Your task to perform on an android device: delete location history Image 0: 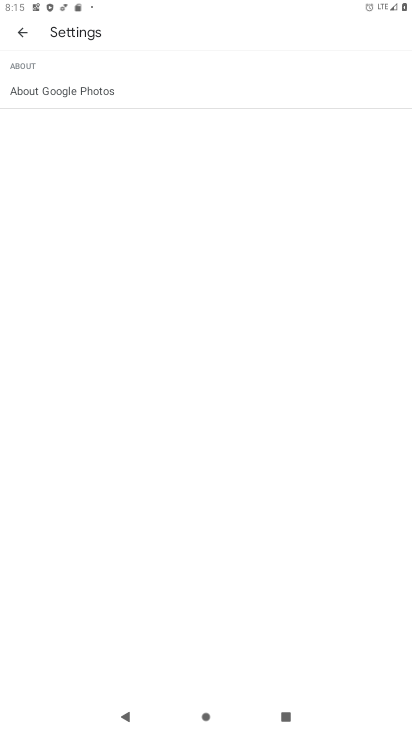
Step 0: press home button
Your task to perform on an android device: delete location history Image 1: 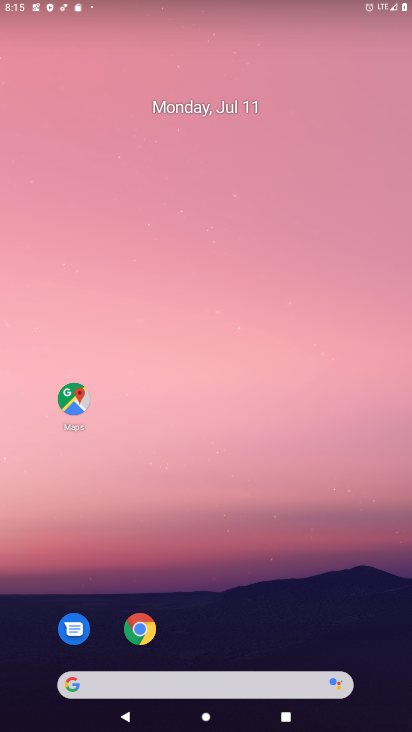
Step 1: drag from (219, 621) to (229, 103)
Your task to perform on an android device: delete location history Image 2: 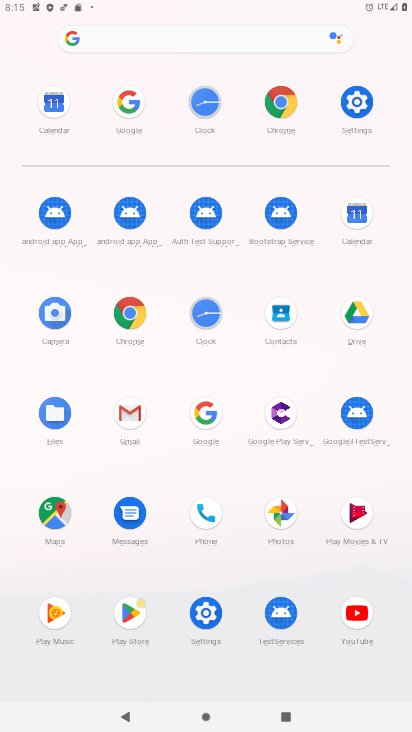
Step 2: click (357, 96)
Your task to perform on an android device: delete location history Image 3: 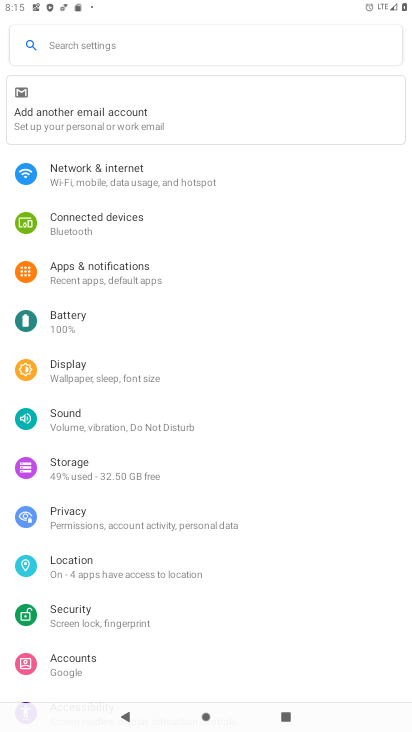
Step 3: click (95, 561)
Your task to perform on an android device: delete location history Image 4: 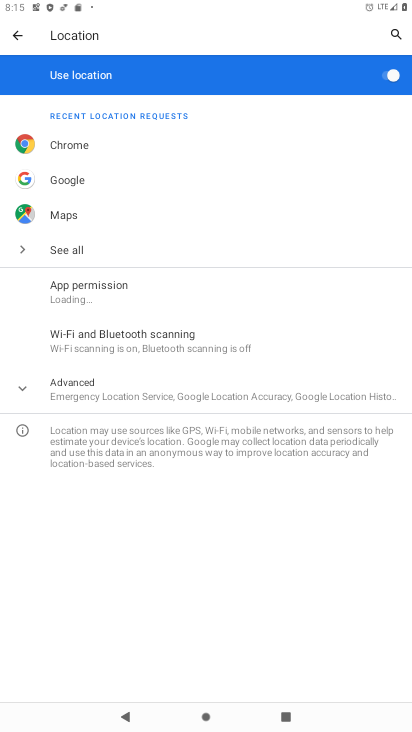
Step 4: click (112, 397)
Your task to perform on an android device: delete location history Image 5: 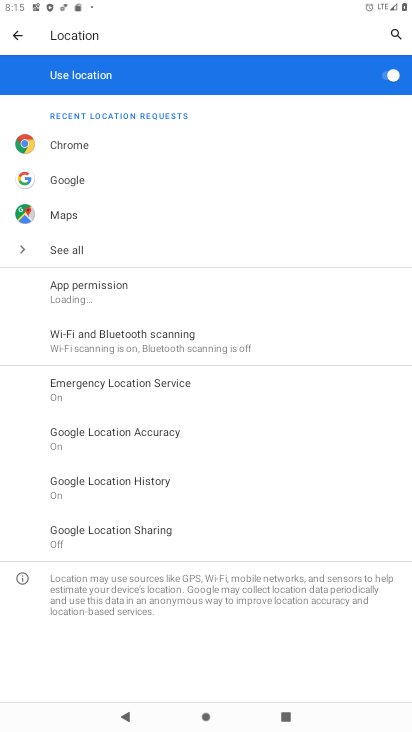
Step 5: click (151, 484)
Your task to perform on an android device: delete location history Image 6: 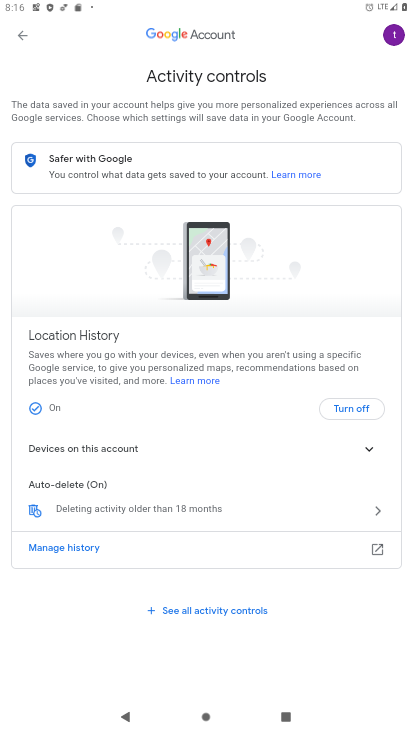
Step 6: click (34, 513)
Your task to perform on an android device: delete location history Image 7: 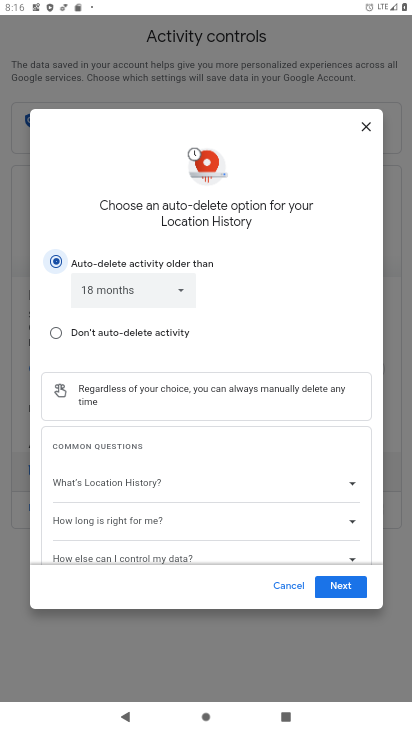
Step 7: click (339, 581)
Your task to perform on an android device: delete location history Image 8: 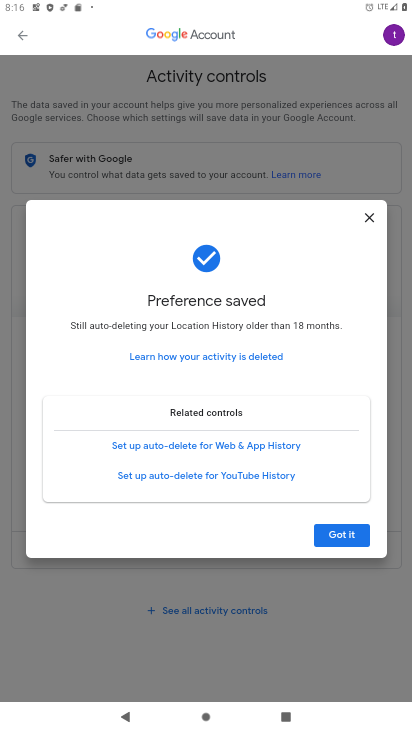
Step 8: click (326, 535)
Your task to perform on an android device: delete location history Image 9: 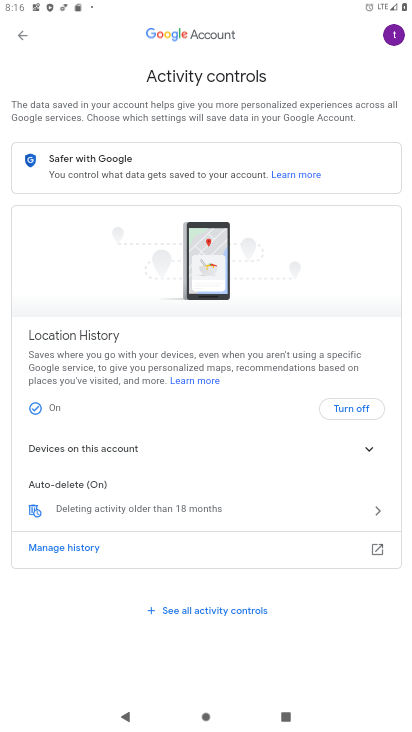
Step 9: task complete